Your task to perform on an android device: Go to eBay Image 0: 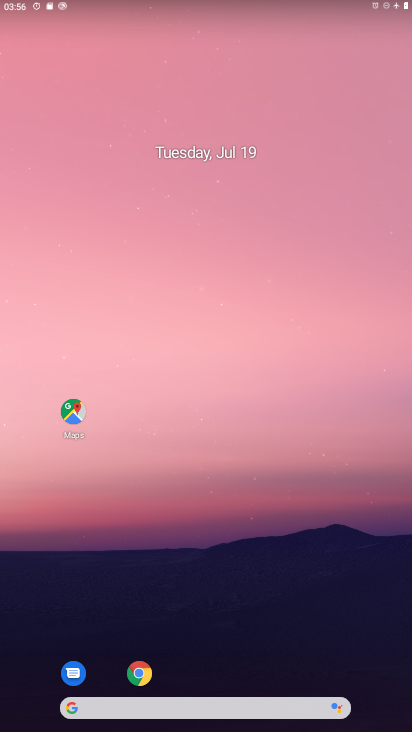
Step 0: click (146, 670)
Your task to perform on an android device: Go to eBay Image 1: 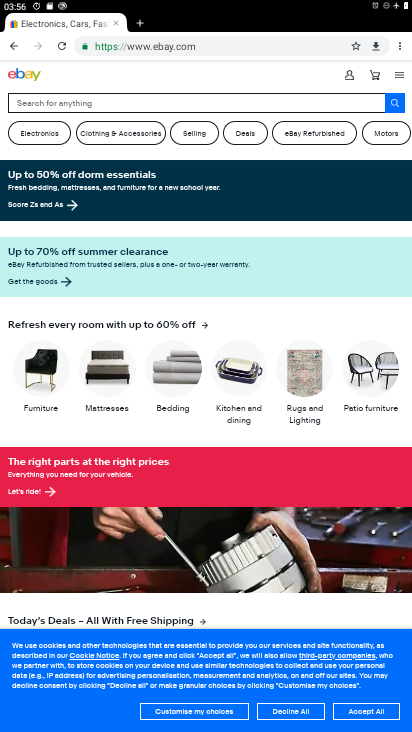
Step 1: click (21, 71)
Your task to perform on an android device: Go to eBay Image 2: 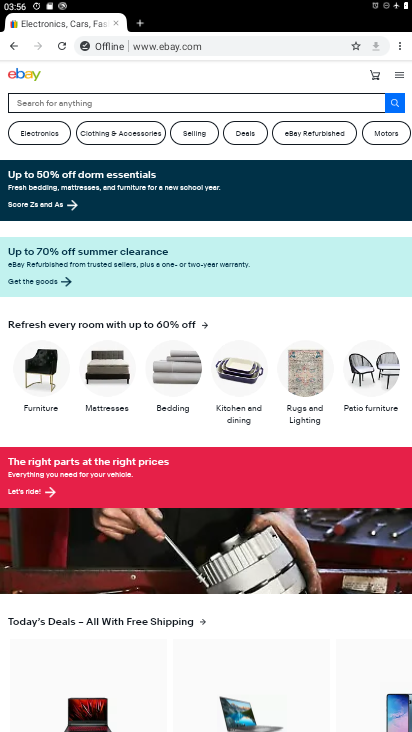
Step 2: click (29, 73)
Your task to perform on an android device: Go to eBay Image 3: 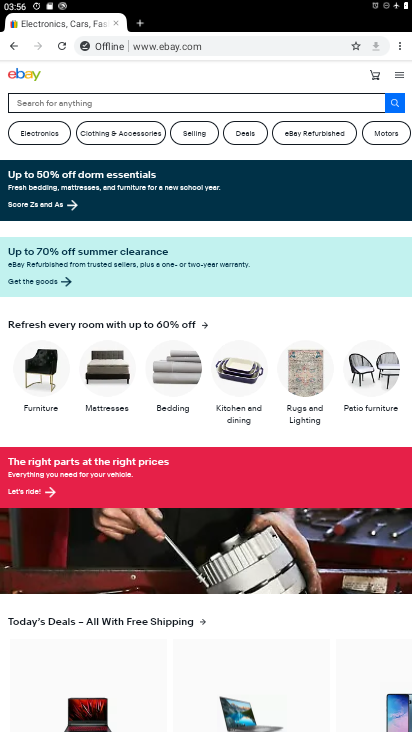
Step 3: task complete